Your task to perform on an android device: check google app version Image 0: 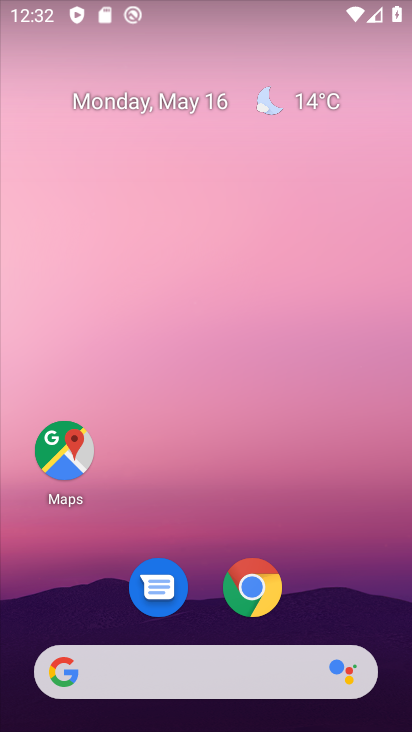
Step 0: drag from (214, 725) to (236, 153)
Your task to perform on an android device: check google app version Image 1: 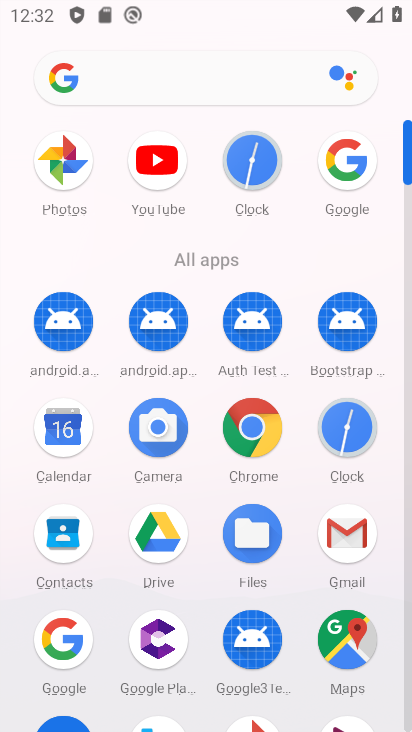
Step 1: click (61, 631)
Your task to perform on an android device: check google app version Image 2: 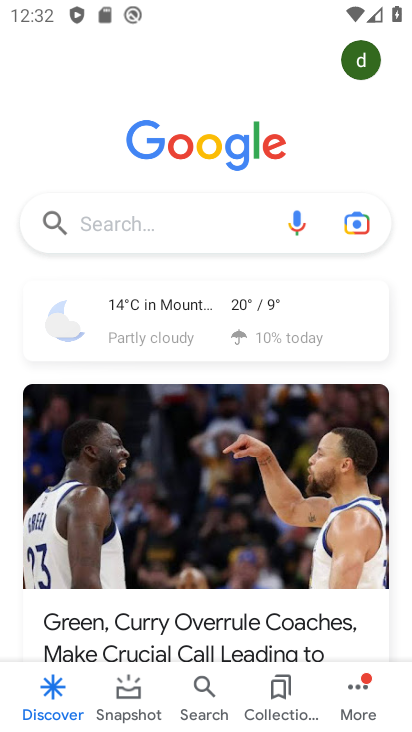
Step 2: click (362, 687)
Your task to perform on an android device: check google app version Image 3: 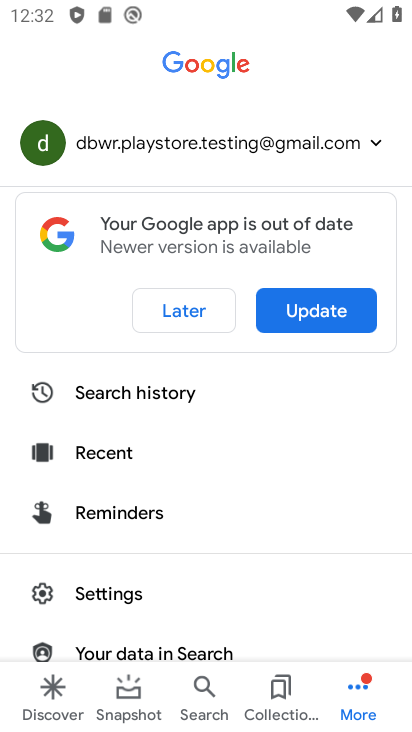
Step 3: click (95, 589)
Your task to perform on an android device: check google app version Image 4: 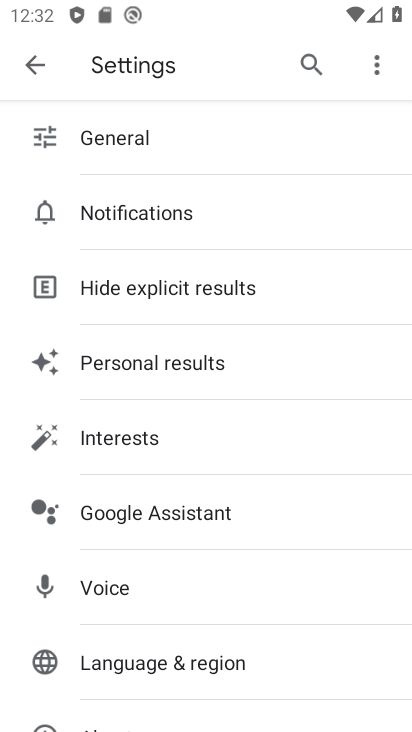
Step 4: drag from (196, 635) to (237, 216)
Your task to perform on an android device: check google app version Image 5: 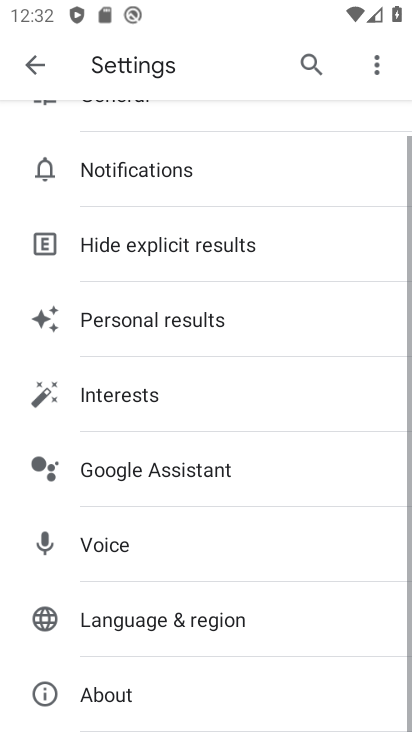
Step 5: click (112, 696)
Your task to perform on an android device: check google app version Image 6: 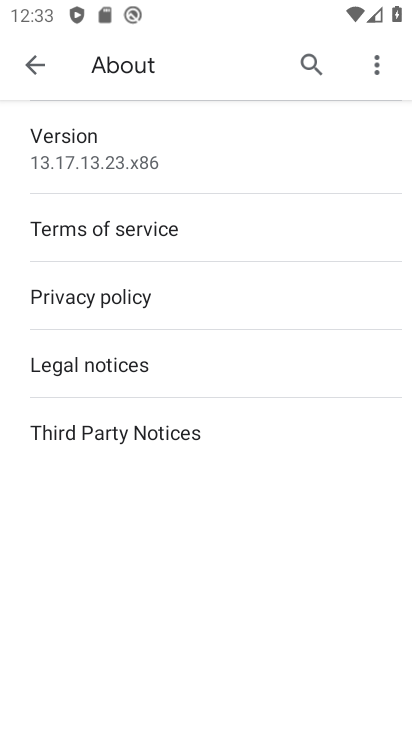
Step 6: task complete